Your task to perform on an android device: View the shopping cart on bestbuy.com. Image 0: 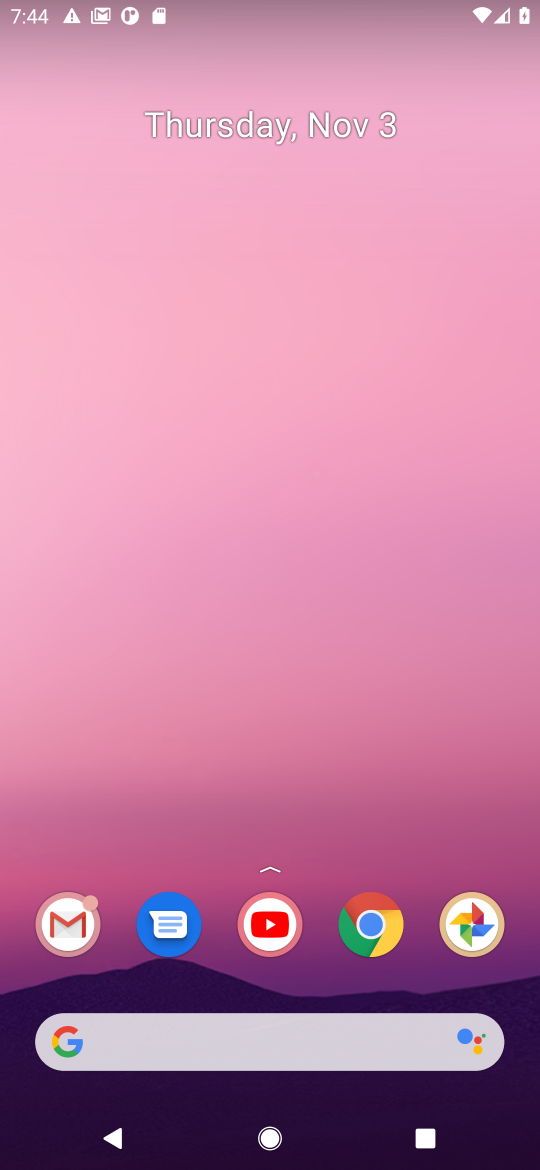
Step 0: click (303, 1037)
Your task to perform on an android device: View the shopping cart on bestbuy.com. Image 1: 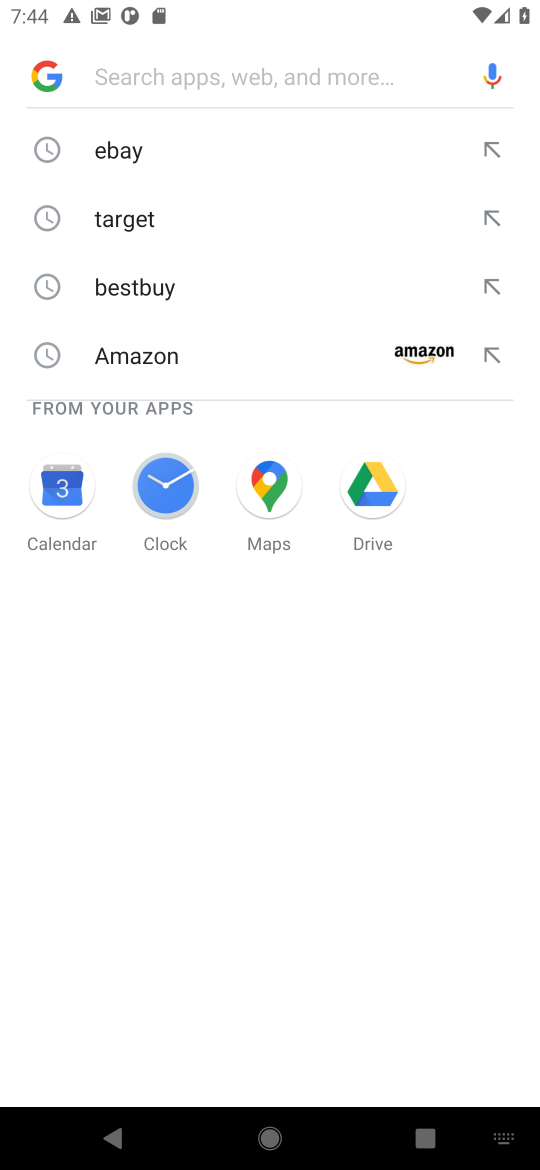
Step 1: click (133, 281)
Your task to perform on an android device: View the shopping cart on bestbuy.com. Image 2: 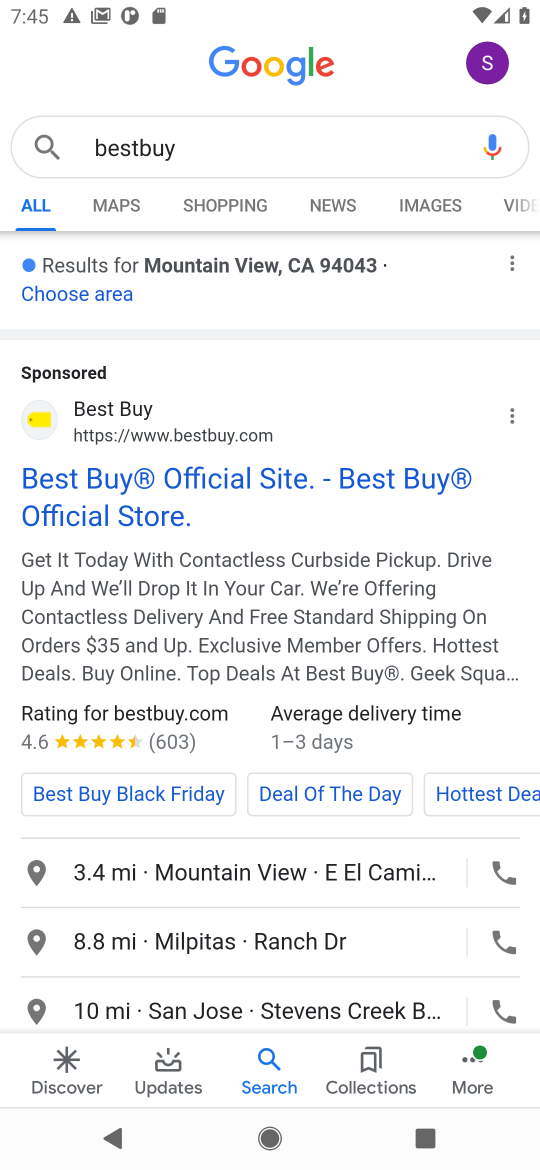
Step 2: click (98, 402)
Your task to perform on an android device: View the shopping cart on bestbuy.com. Image 3: 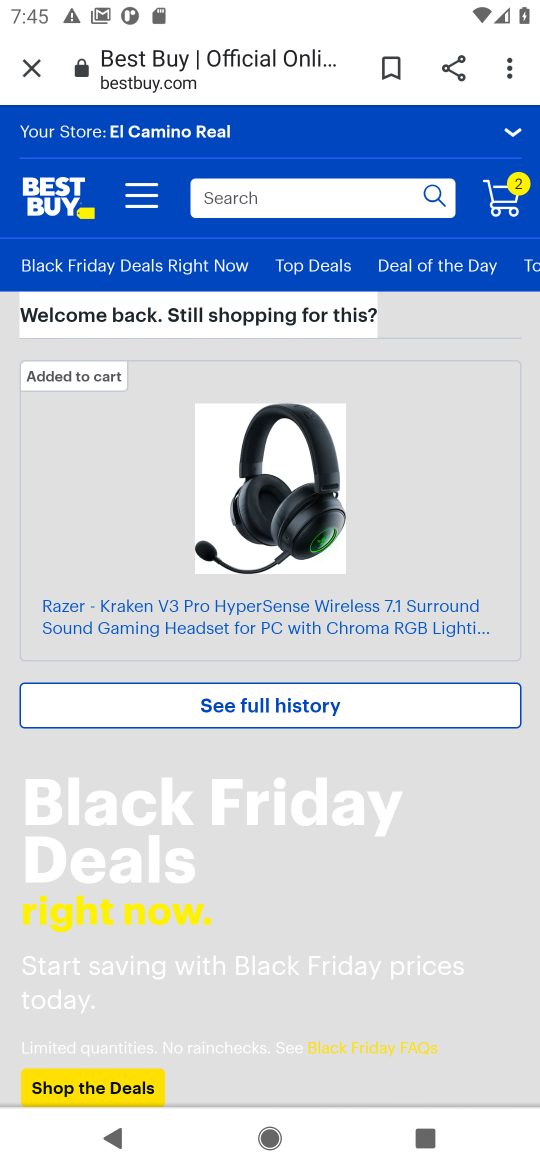
Step 3: task complete